Your task to perform on an android device: turn on notifications settings in the gmail app Image 0: 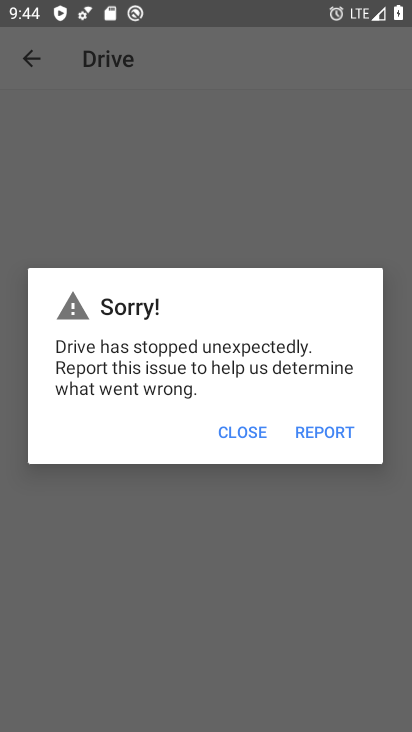
Step 0: press home button
Your task to perform on an android device: turn on notifications settings in the gmail app Image 1: 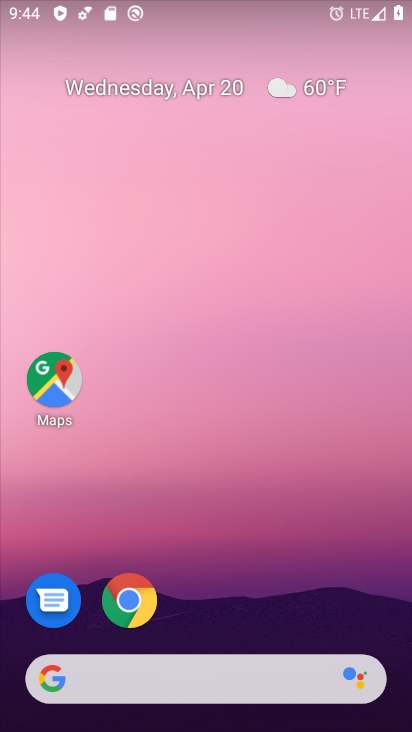
Step 1: drag from (209, 643) to (196, 19)
Your task to perform on an android device: turn on notifications settings in the gmail app Image 2: 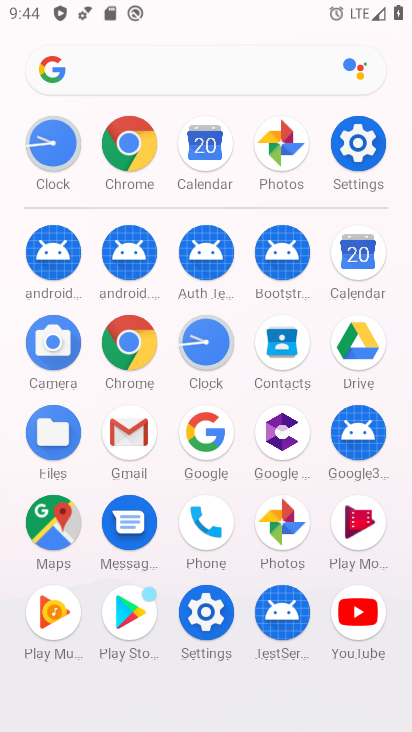
Step 2: click (133, 439)
Your task to perform on an android device: turn on notifications settings in the gmail app Image 3: 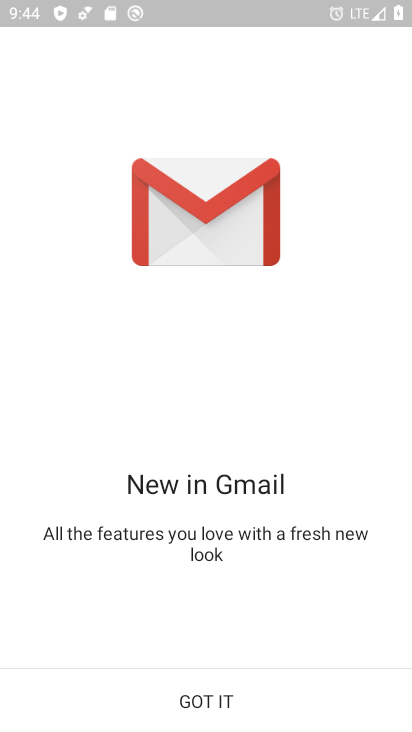
Step 3: click (213, 696)
Your task to perform on an android device: turn on notifications settings in the gmail app Image 4: 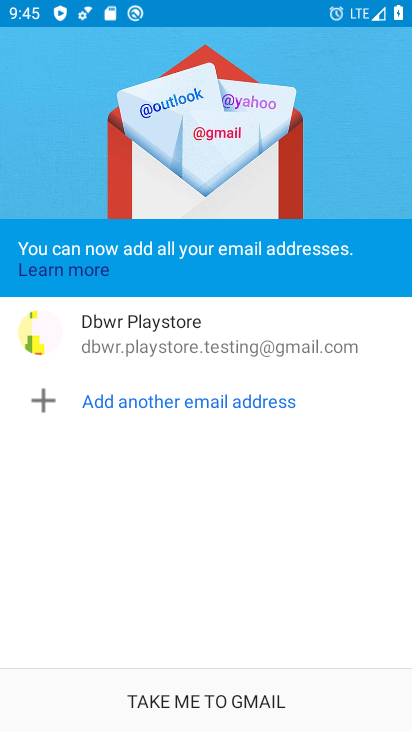
Step 4: click (268, 699)
Your task to perform on an android device: turn on notifications settings in the gmail app Image 5: 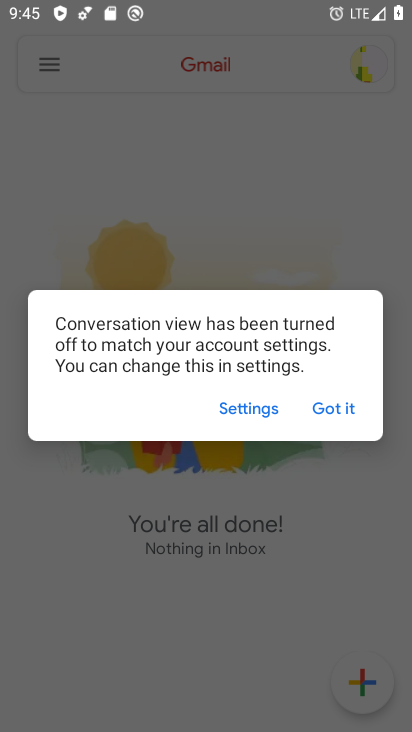
Step 5: click (316, 407)
Your task to perform on an android device: turn on notifications settings in the gmail app Image 6: 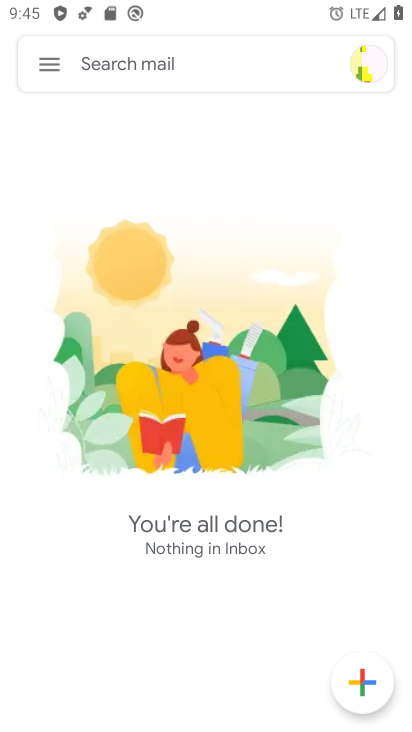
Step 6: click (30, 53)
Your task to perform on an android device: turn on notifications settings in the gmail app Image 7: 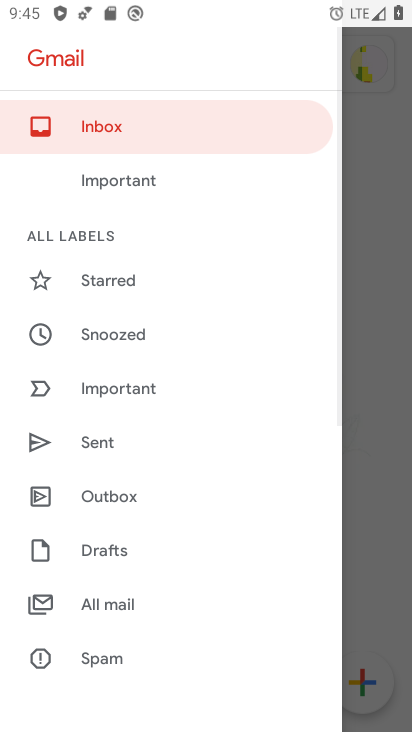
Step 7: drag from (189, 638) to (100, 3)
Your task to perform on an android device: turn on notifications settings in the gmail app Image 8: 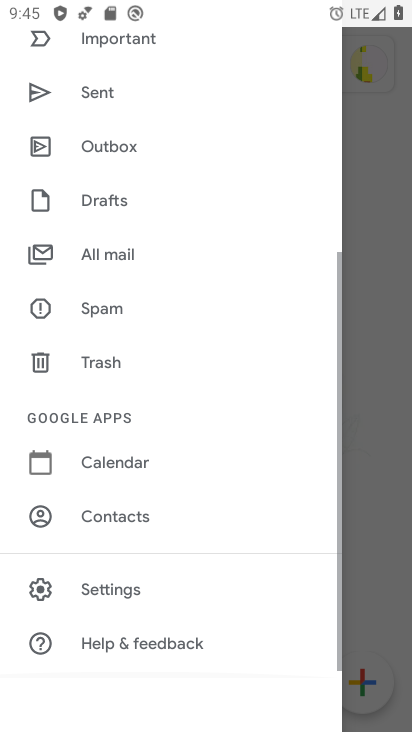
Step 8: click (105, 564)
Your task to perform on an android device: turn on notifications settings in the gmail app Image 9: 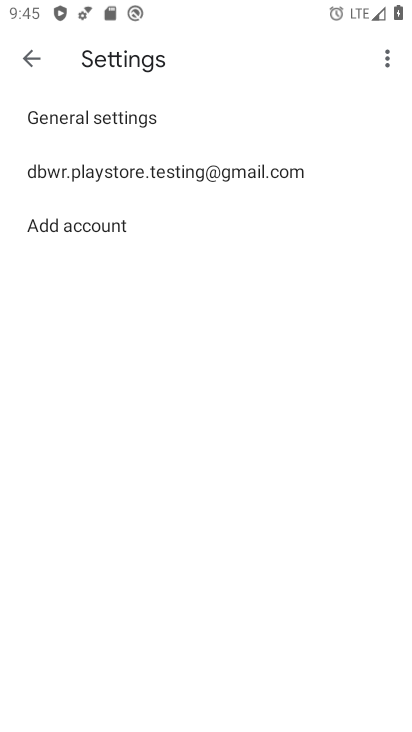
Step 9: click (65, 110)
Your task to perform on an android device: turn on notifications settings in the gmail app Image 10: 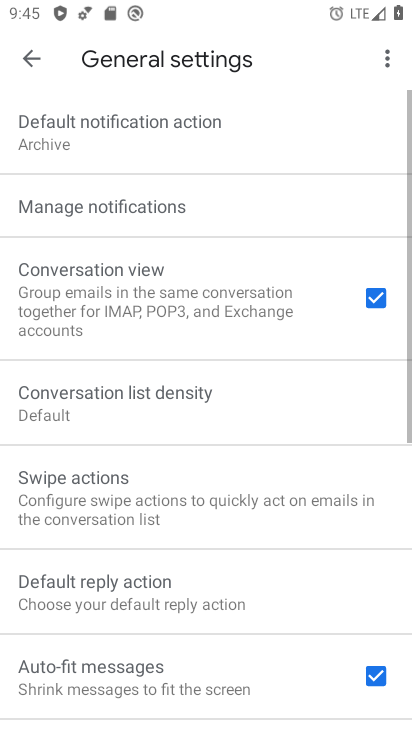
Step 10: click (175, 215)
Your task to perform on an android device: turn on notifications settings in the gmail app Image 11: 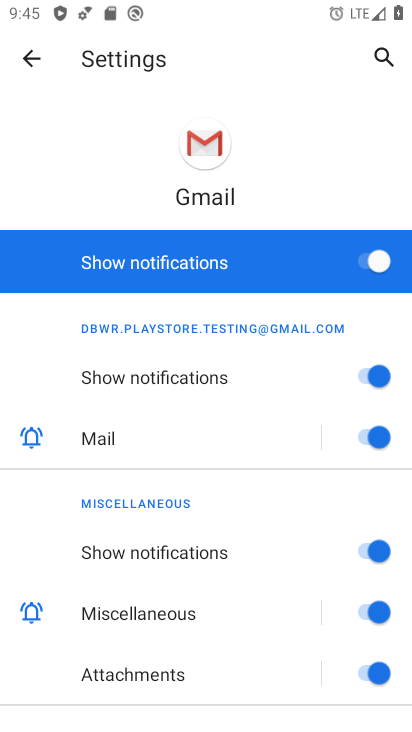
Step 11: task complete